Your task to perform on an android device: Search for a new lawnmower on Lowes.com Image 0: 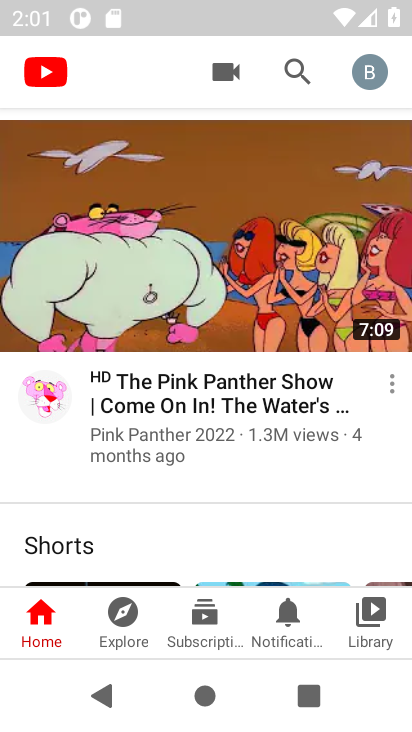
Step 0: press back button
Your task to perform on an android device: Search for a new lawnmower on Lowes.com Image 1: 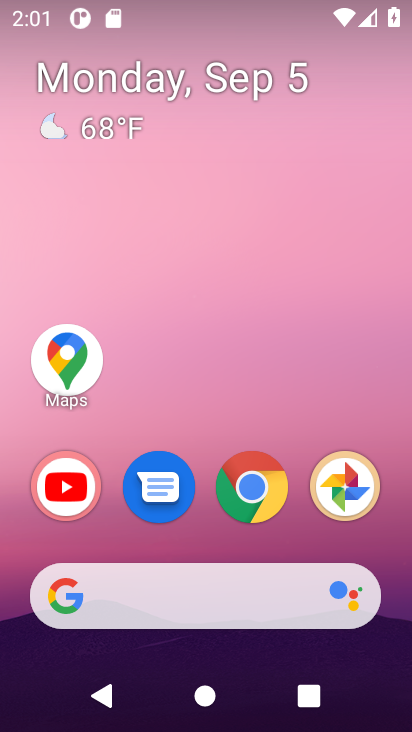
Step 1: click (242, 460)
Your task to perform on an android device: Search for a new lawnmower on Lowes.com Image 2: 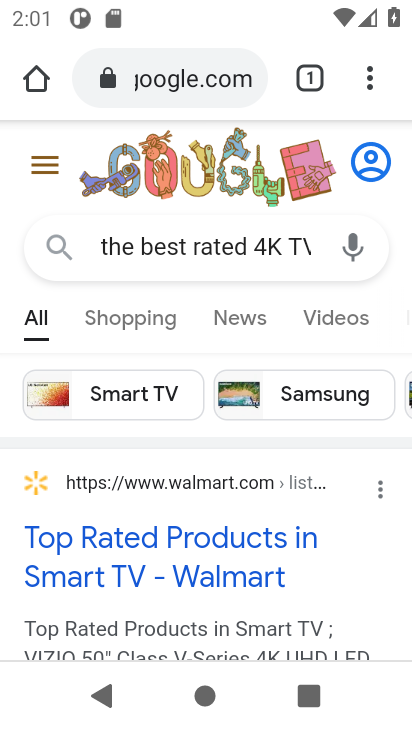
Step 2: click (152, 77)
Your task to perform on an android device: Search for a new lawnmower on Lowes.com Image 3: 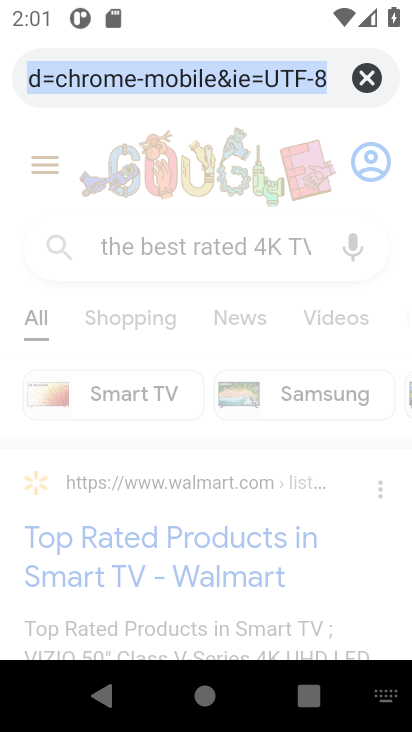
Step 3: click (359, 78)
Your task to perform on an android device: Search for a new lawnmower on Lowes.com Image 4: 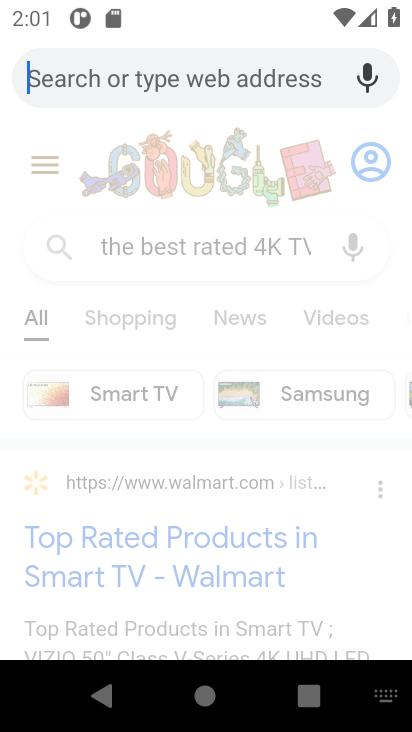
Step 4: type "new lawnmower on Lowes.com"
Your task to perform on an android device: Search for a new lawnmower on Lowes.com Image 5: 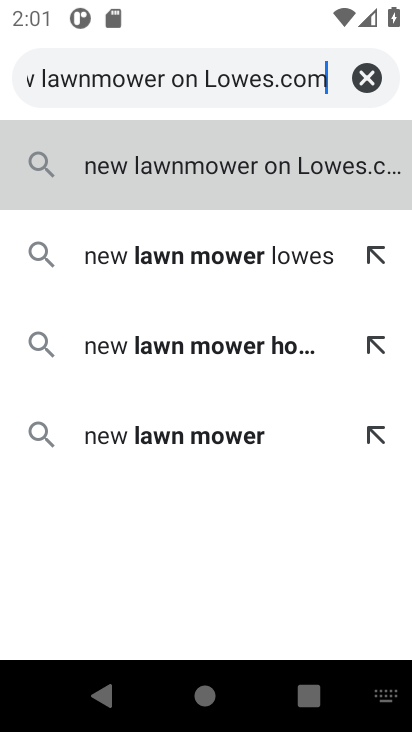
Step 5: click (285, 162)
Your task to perform on an android device: Search for a new lawnmower on Lowes.com Image 6: 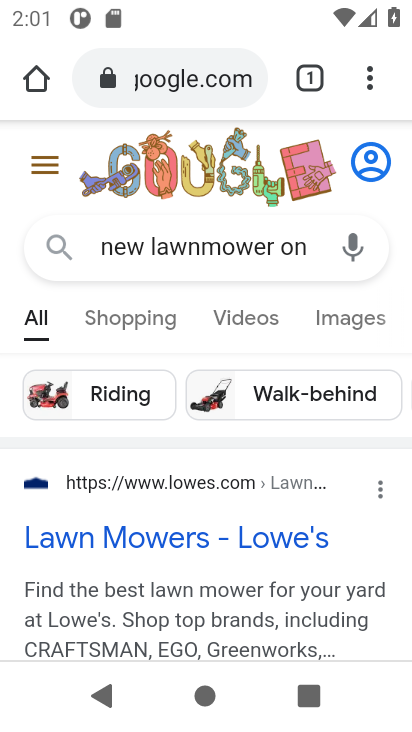
Step 6: task complete